Your task to perform on an android device: Show me recent news Image 0: 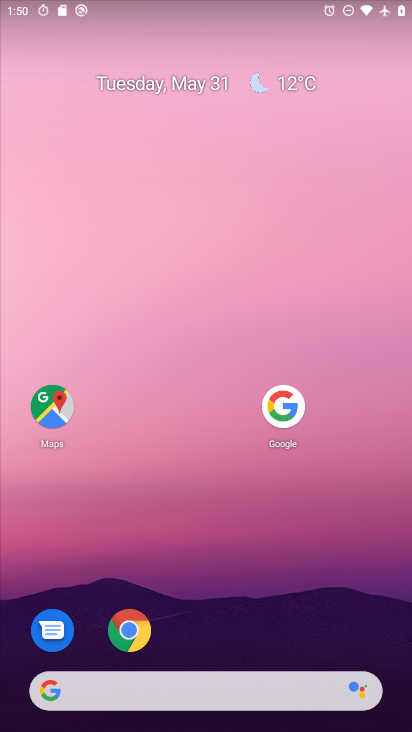
Step 0: press home button
Your task to perform on an android device: Show me recent news Image 1: 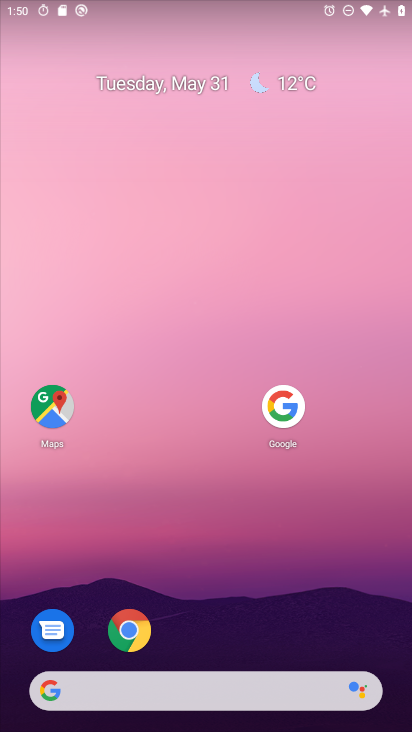
Step 1: click (44, 691)
Your task to perform on an android device: Show me recent news Image 2: 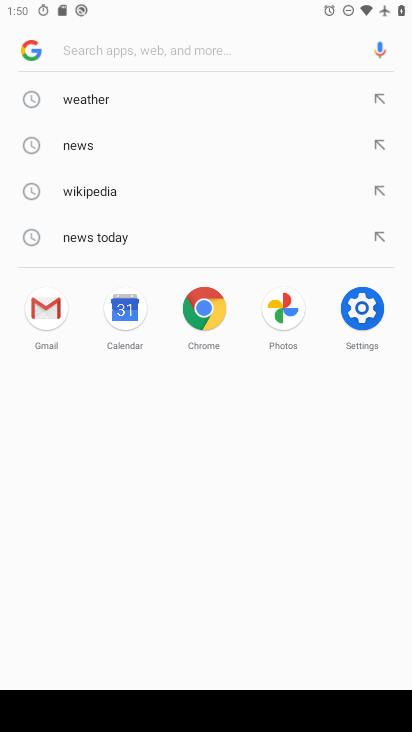
Step 2: click (79, 138)
Your task to perform on an android device: Show me recent news Image 3: 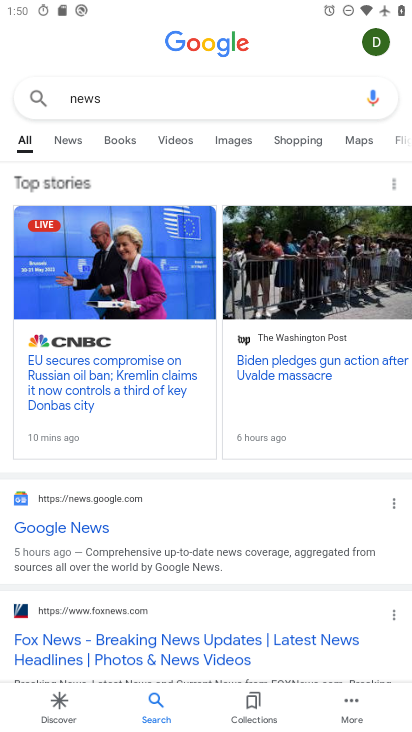
Step 3: click (75, 134)
Your task to perform on an android device: Show me recent news Image 4: 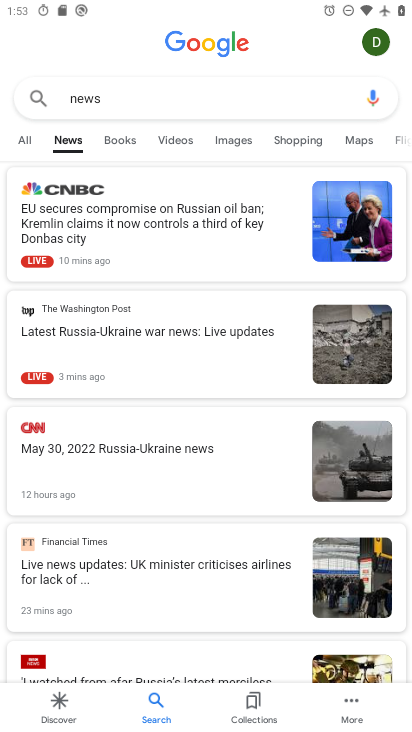
Step 4: task complete